Your task to perform on an android device: allow notifications from all sites in the chrome app Image 0: 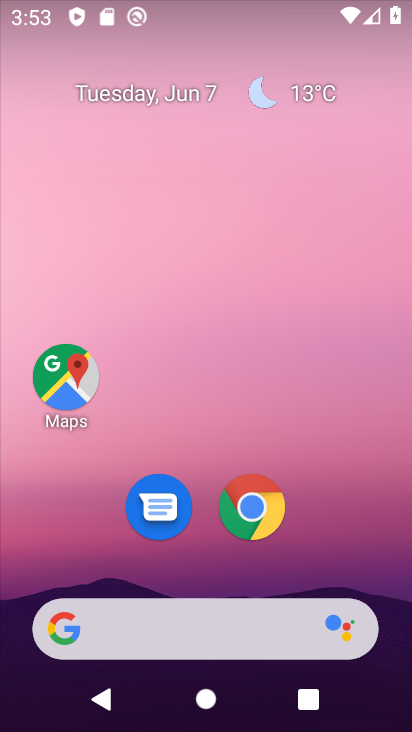
Step 0: drag from (314, 573) to (253, 41)
Your task to perform on an android device: allow notifications from all sites in the chrome app Image 1: 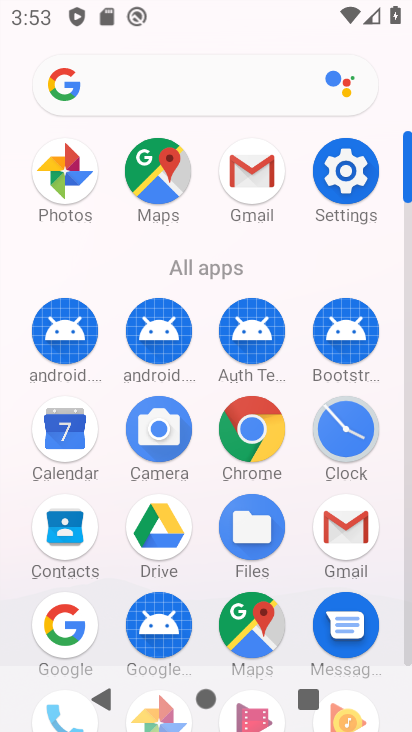
Step 1: drag from (26, 565) to (21, 212)
Your task to perform on an android device: allow notifications from all sites in the chrome app Image 2: 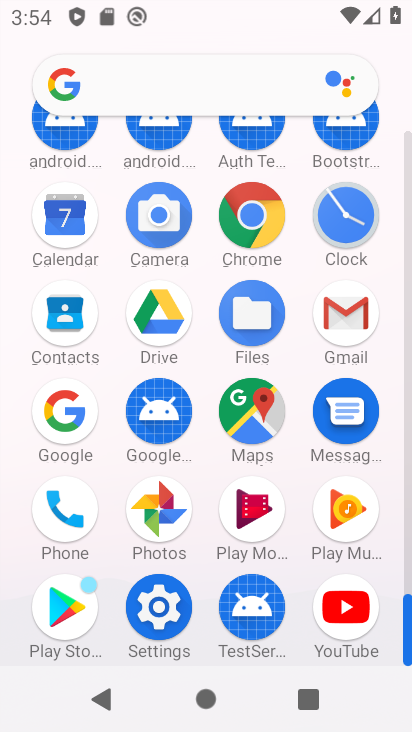
Step 2: click (254, 208)
Your task to perform on an android device: allow notifications from all sites in the chrome app Image 3: 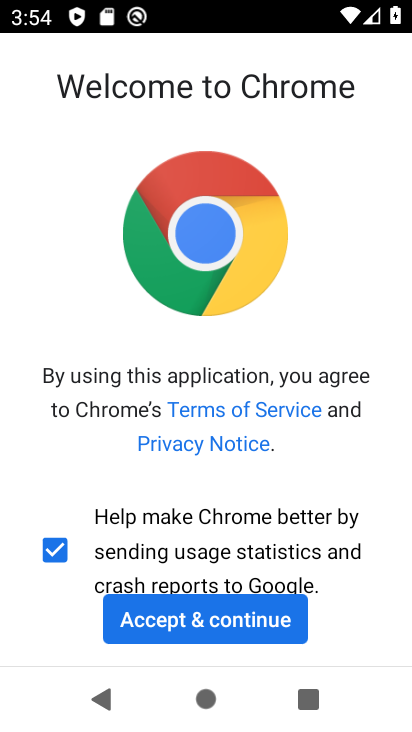
Step 3: click (255, 621)
Your task to perform on an android device: allow notifications from all sites in the chrome app Image 4: 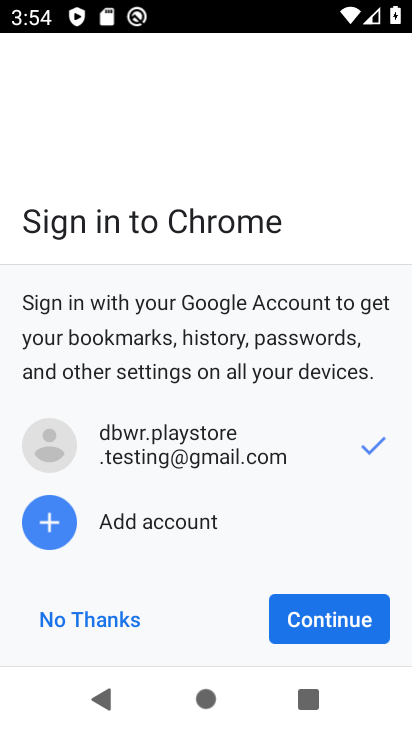
Step 4: click (323, 606)
Your task to perform on an android device: allow notifications from all sites in the chrome app Image 5: 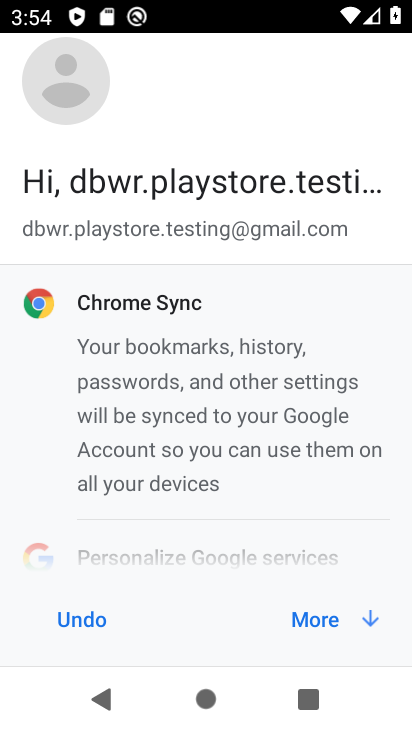
Step 5: click (313, 612)
Your task to perform on an android device: allow notifications from all sites in the chrome app Image 6: 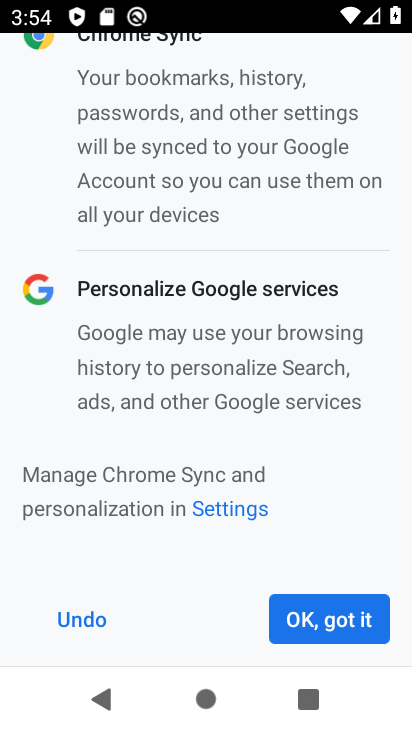
Step 6: click (341, 628)
Your task to perform on an android device: allow notifications from all sites in the chrome app Image 7: 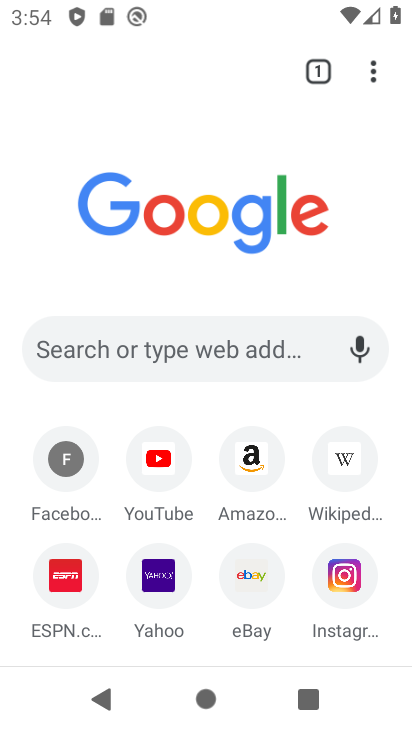
Step 7: drag from (375, 75) to (225, 496)
Your task to perform on an android device: allow notifications from all sites in the chrome app Image 8: 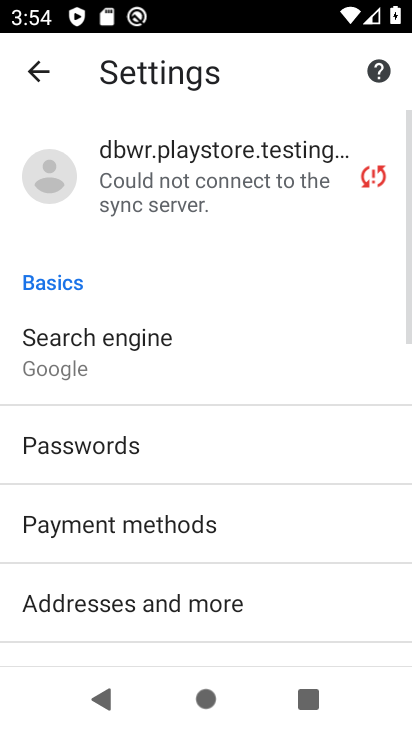
Step 8: drag from (252, 488) to (264, 149)
Your task to perform on an android device: allow notifications from all sites in the chrome app Image 9: 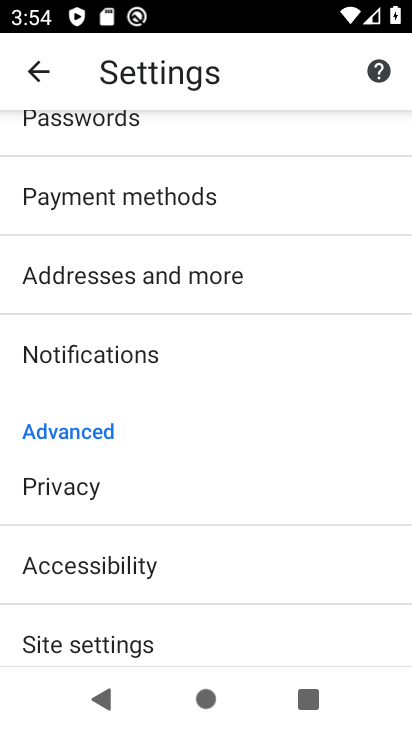
Step 9: drag from (239, 558) to (258, 165)
Your task to perform on an android device: allow notifications from all sites in the chrome app Image 10: 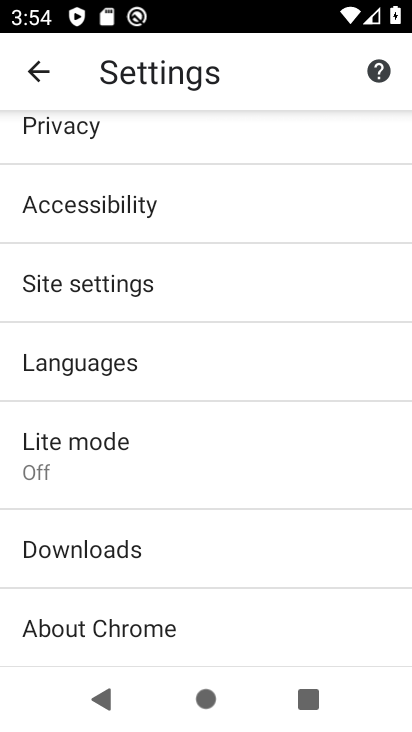
Step 10: drag from (216, 570) to (233, 208)
Your task to perform on an android device: allow notifications from all sites in the chrome app Image 11: 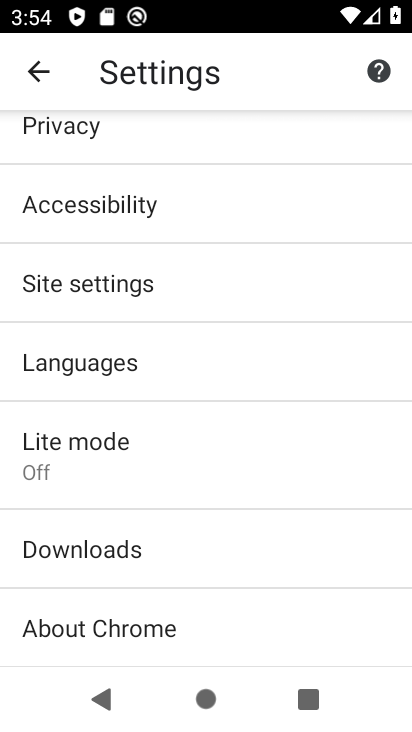
Step 11: drag from (203, 173) to (183, 558)
Your task to perform on an android device: allow notifications from all sites in the chrome app Image 12: 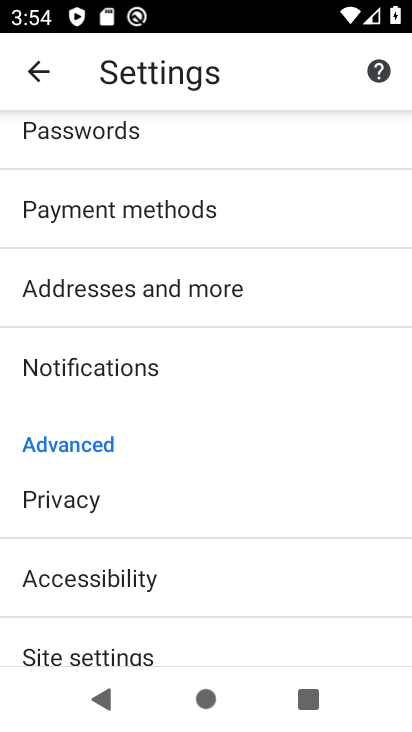
Step 12: drag from (164, 603) to (213, 383)
Your task to perform on an android device: allow notifications from all sites in the chrome app Image 13: 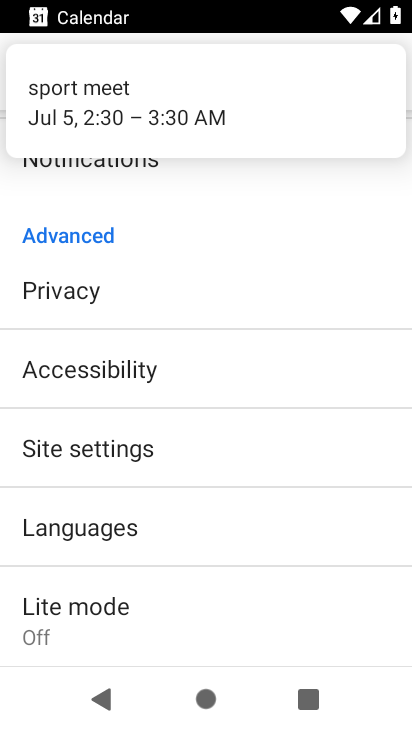
Step 13: drag from (206, 474) to (208, 582)
Your task to perform on an android device: allow notifications from all sites in the chrome app Image 14: 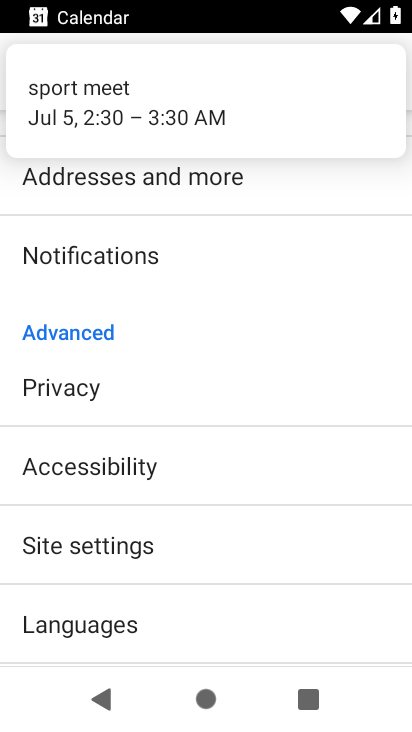
Step 14: click (135, 241)
Your task to perform on an android device: allow notifications from all sites in the chrome app Image 15: 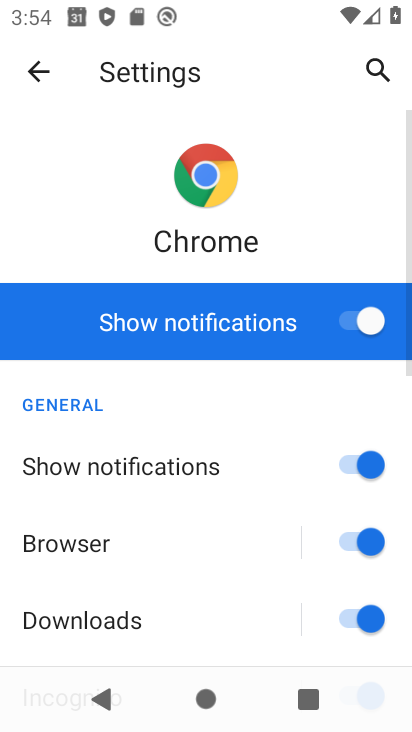
Step 15: drag from (154, 602) to (184, 207)
Your task to perform on an android device: allow notifications from all sites in the chrome app Image 16: 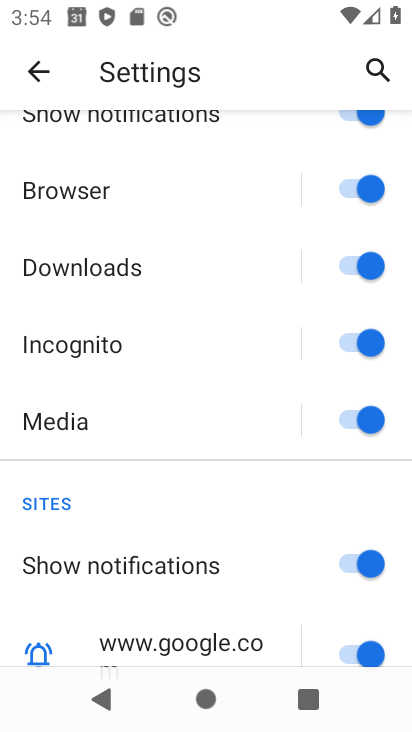
Step 16: drag from (192, 587) to (214, 126)
Your task to perform on an android device: allow notifications from all sites in the chrome app Image 17: 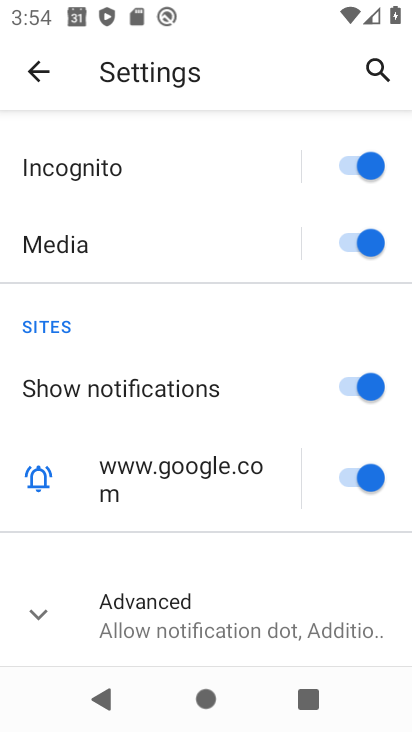
Step 17: click (46, 608)
Your task to perform on an android device: allow notifications from all sites in the chrome app Image 18: 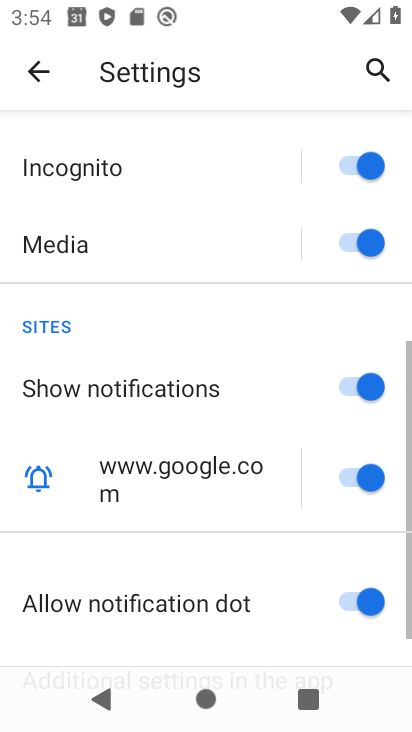
Step 18: drag from (178, 615) to (222, 213)
Your task to perform on an android device: allow notifications from all sites in the chrome app Image 19: 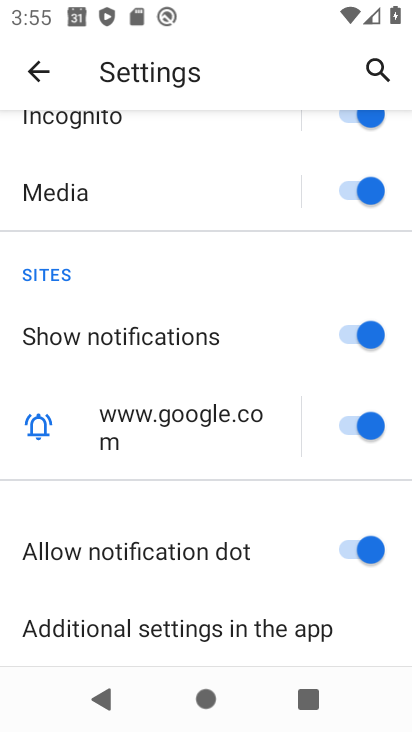
Step 19: click (350, 537)
Your task to perform on an android device: allow notifications from all sites in the chrome app Image 20: 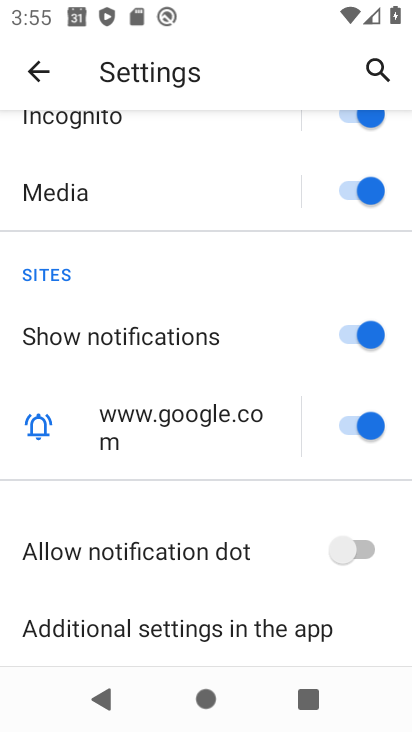
Step 20: task complete